Your task to perform on an android device: Open Reddit.com Image 0: 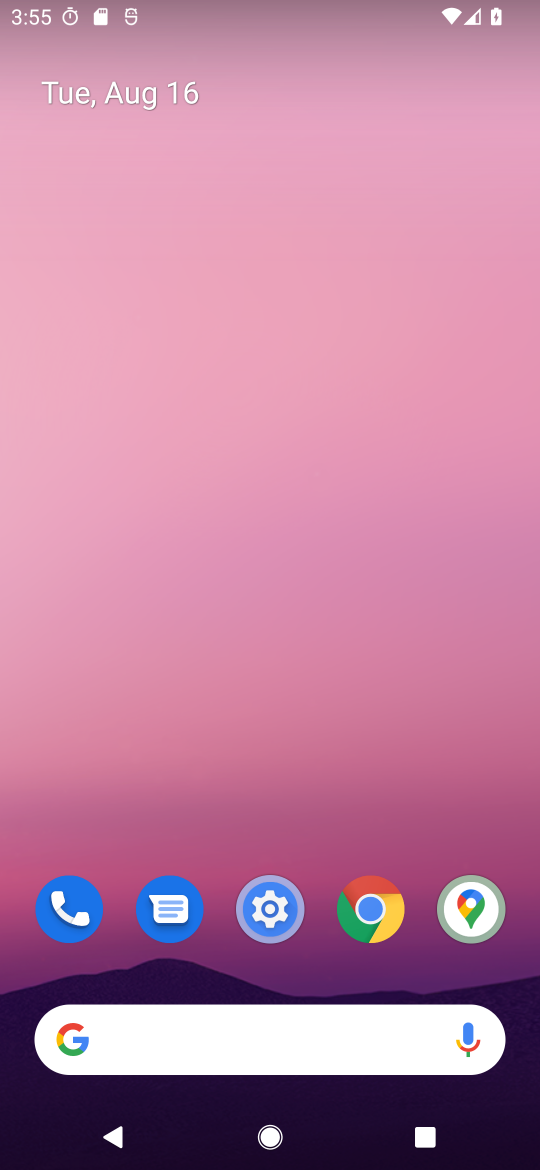
Step 0: click (364, 913)
Your task to perform on an android device: Open Reddit.com Image 1: 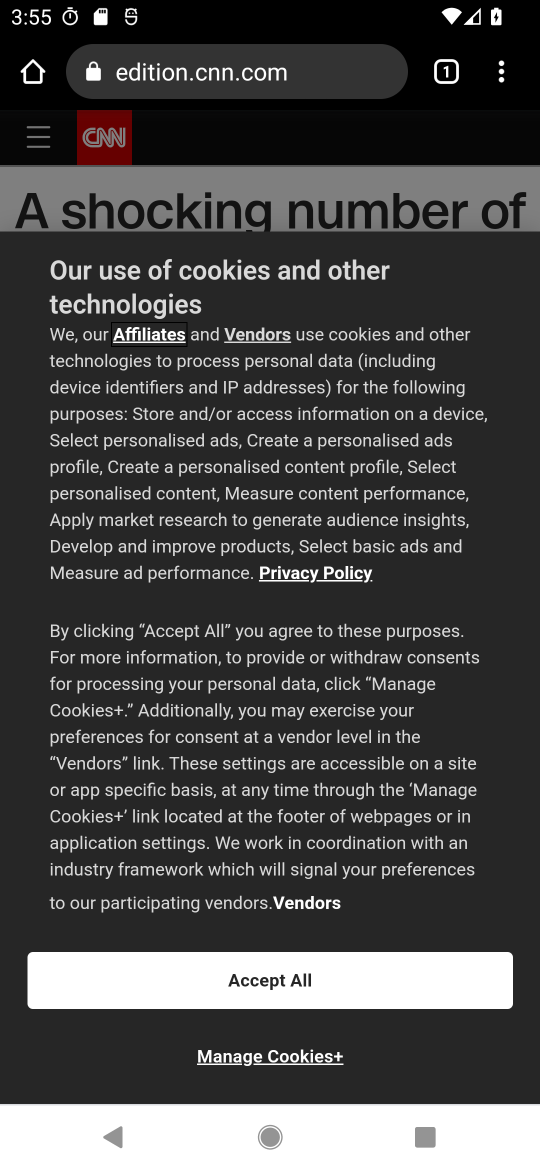
Step 1: click (192, 77)
Your task to perform on an android device: Open Reddit.com Image 2: 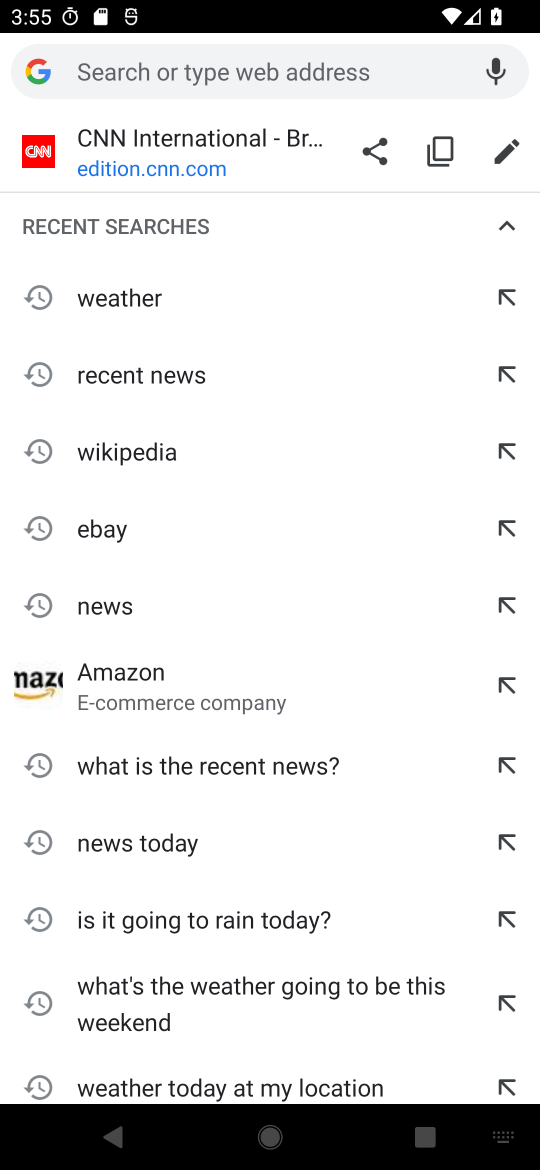
Step 2: type "www.reddit.com"
Your task to perform on an android device: Open Reddit.com Image 3: 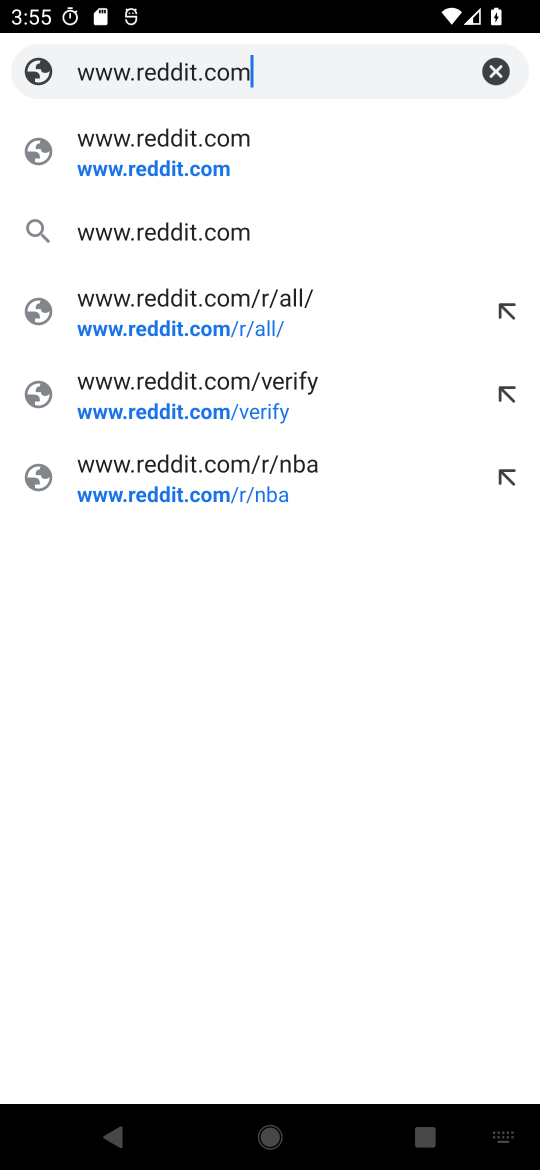
Step 3: click (177, 149)
Your task to perform on an android device: Open Reddit.com Image 4: 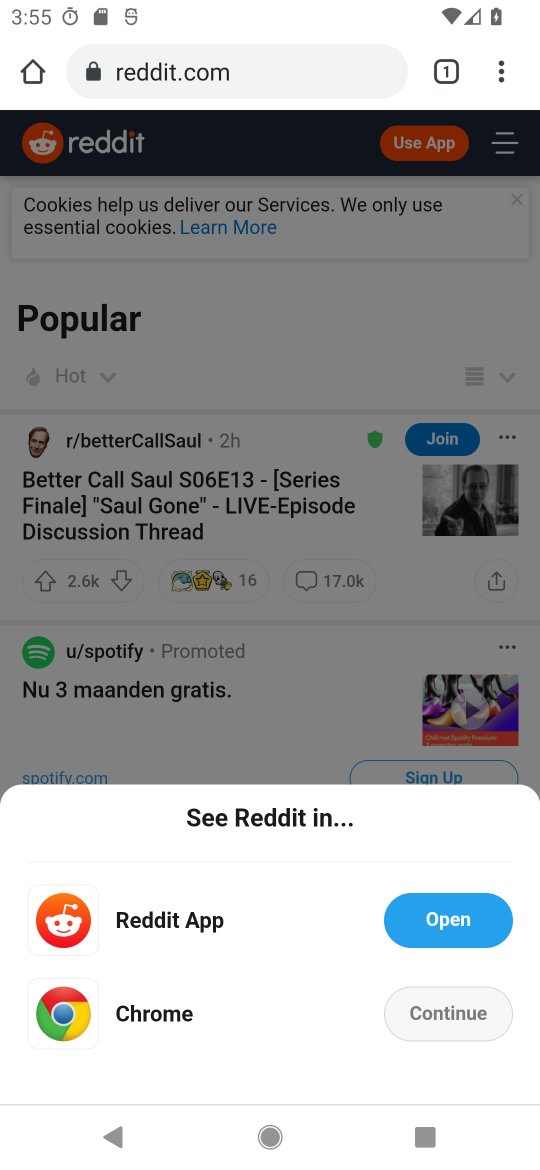
Step 4: task complete